Your task to perform on an android device: change keyboard looks Image 0: 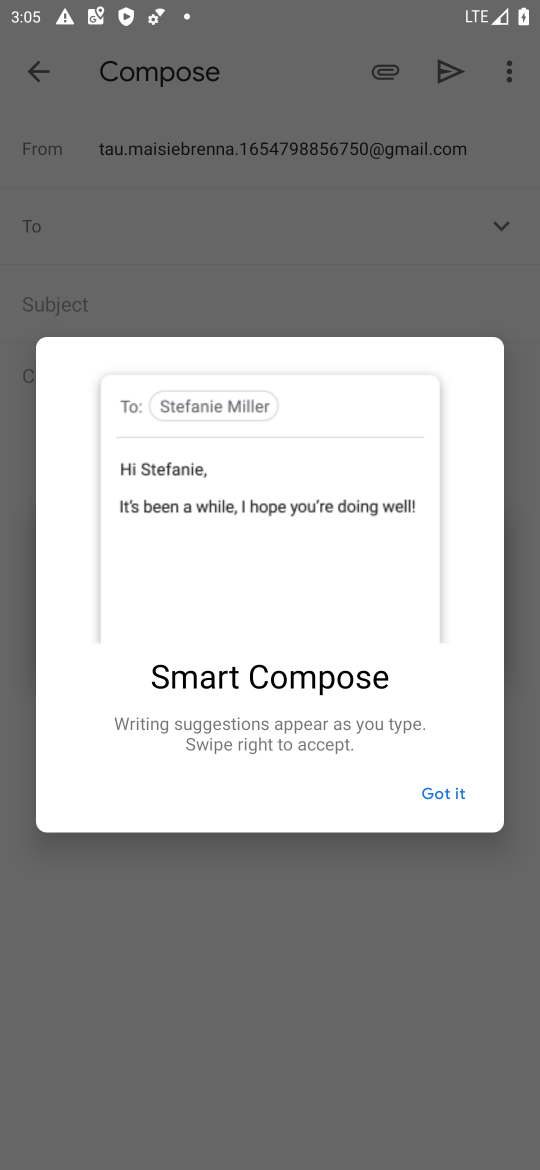
Step 0: press home button
Your task to perform on an android device: change keyboard looks Image 1: 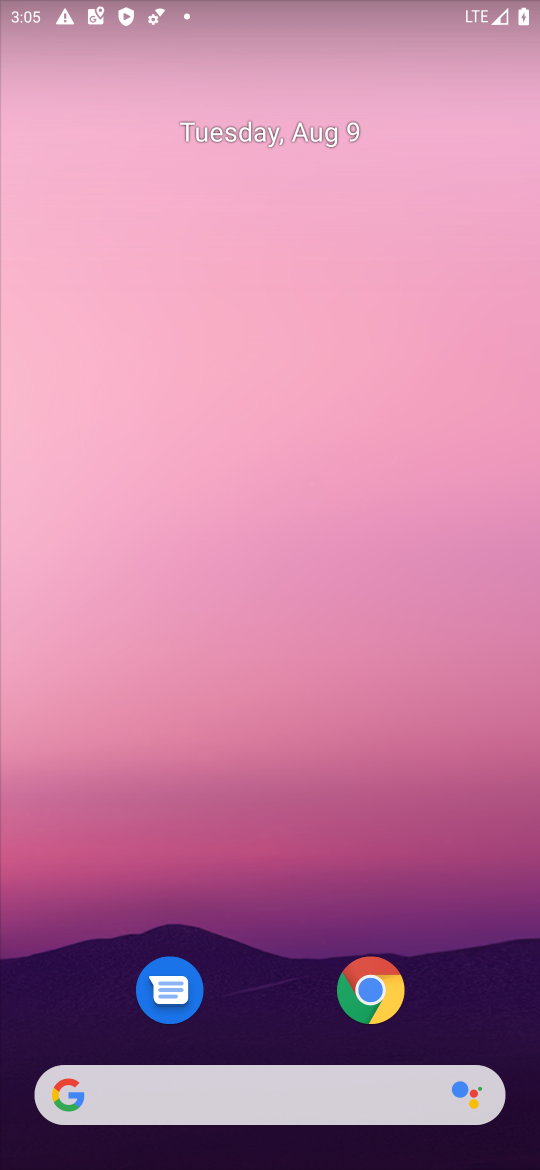
Step 1: click (227, 1064)
Your task to perform on an android device: change keyboard looks Image 2: 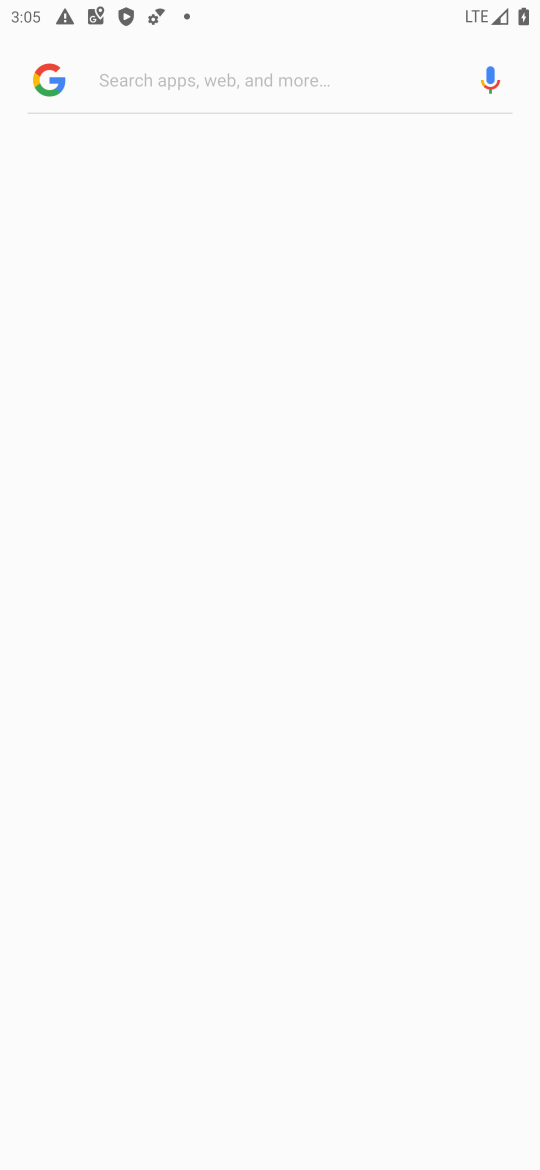
Step 2: drag from (227, 1064) to (220, 581)
Your task to perform on an android device: change keyboard looks Image 3: 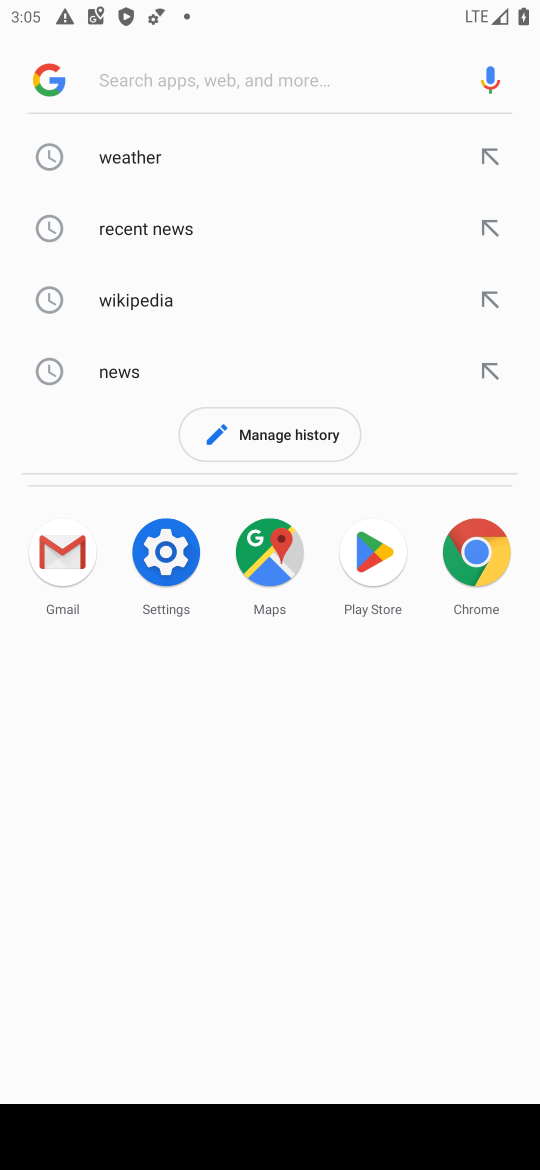
Step 3: click (220, 581)
Your task to perform on an android device: change keyboard looks Image 4: 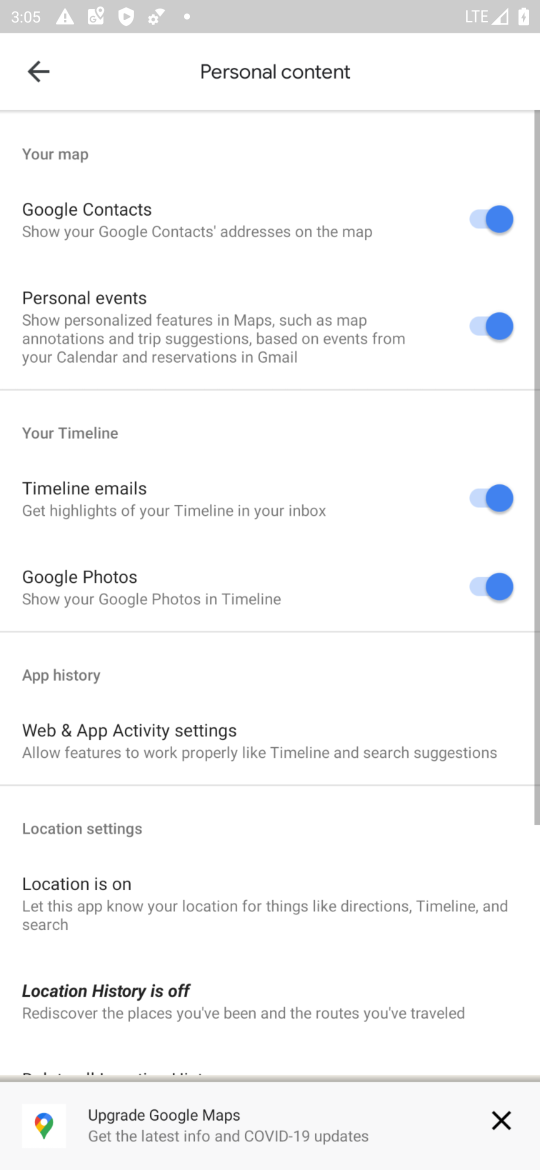
Step 4: press home button
Your task to perform on an android device: change keyboard looks Image 5: 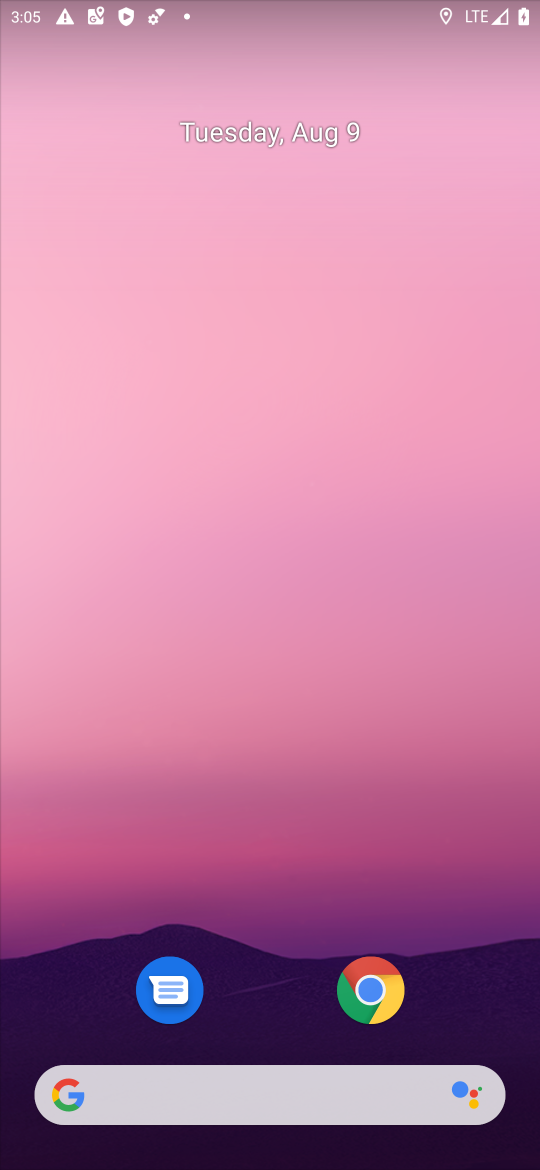
Step 5: drag from (295, 1118) to (259, 338)
Your task to perform on an android device: change keyboard looks Image 6: 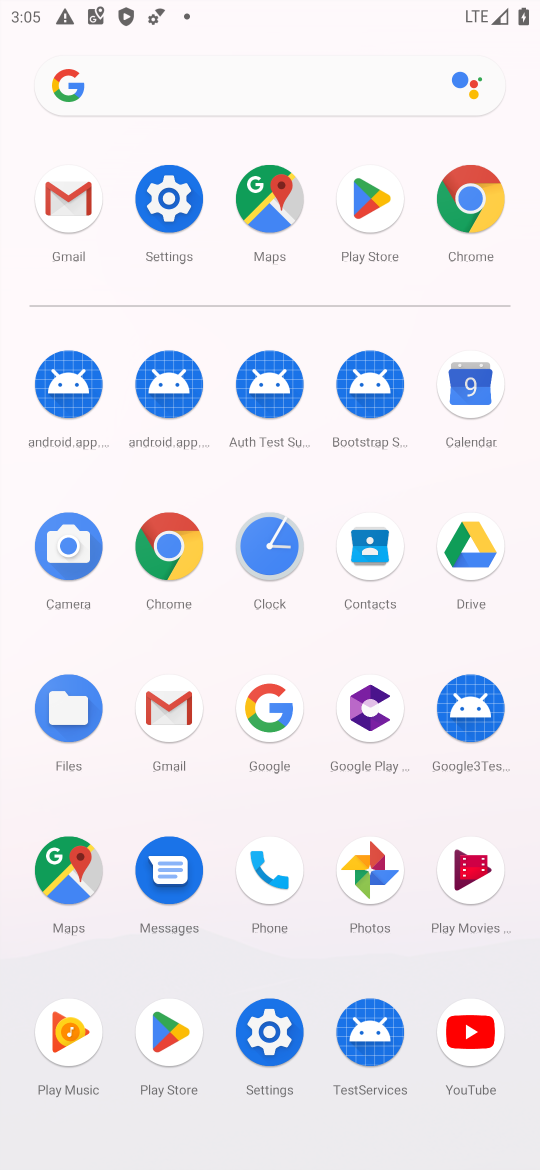
Step 6: click (170, 191)
Your task to perform on an android device: change keyboard looks Image 7: 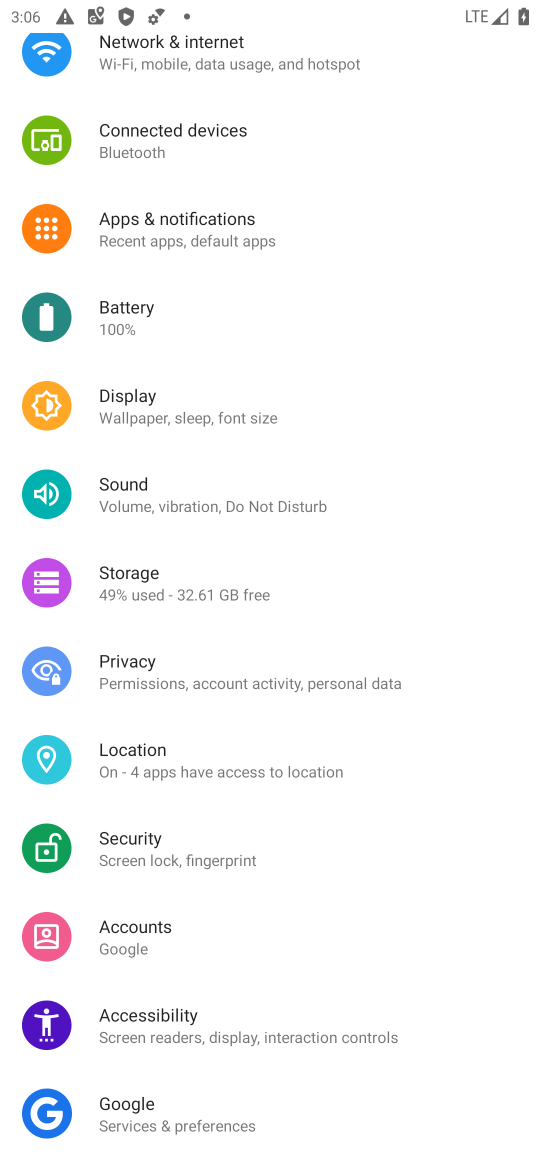
Step 7: drag from (376, 1118) to (311, 640)
Your task to perform on an android device: change keyboard looks Image 8: 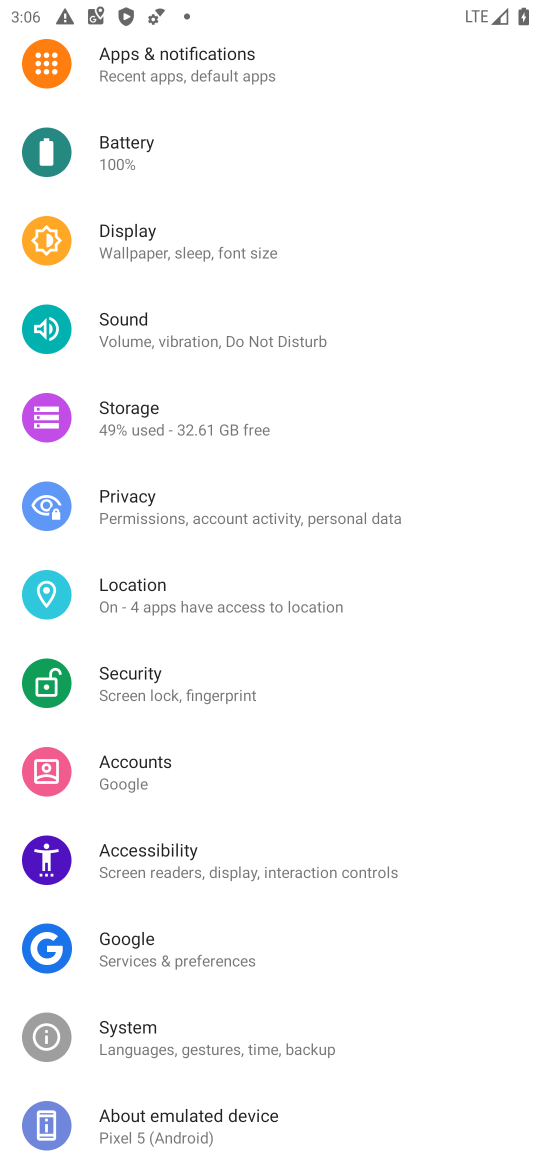
Step 8: click (186, 850)
Your task to perform on an android device: change keyboard looks Image 9: 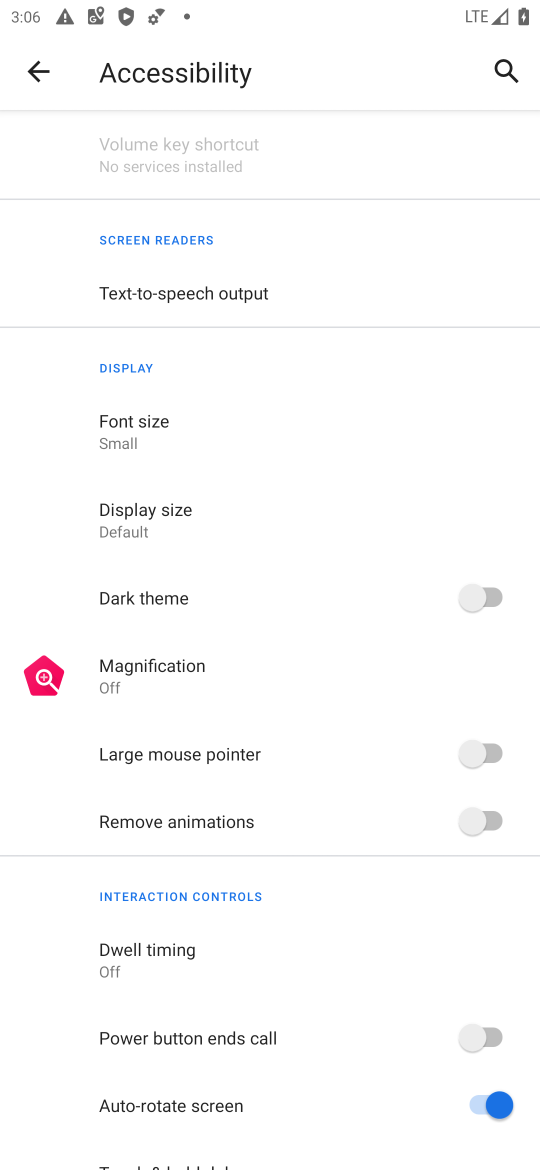
Step 9: press back button
Your task to perform on an android device: change keyboard looks Image 10: 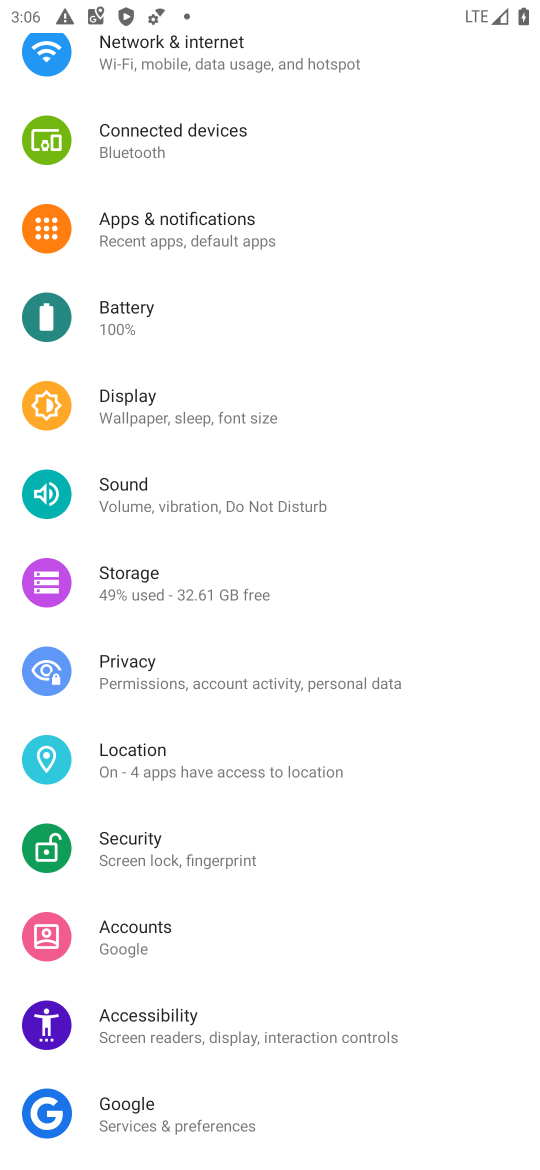
Step 10: click (275, 1032)
Your task to perform on an android device: change keyboard looks Image 11: 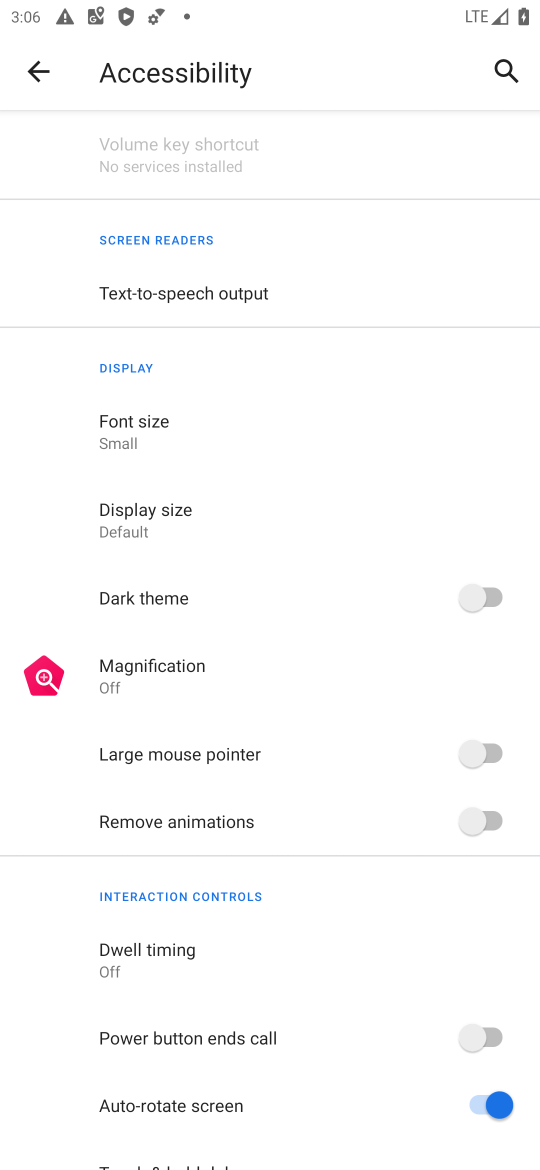
Step 11: press back button
Your task to perform on an android device: change keyboard looks Image 12: 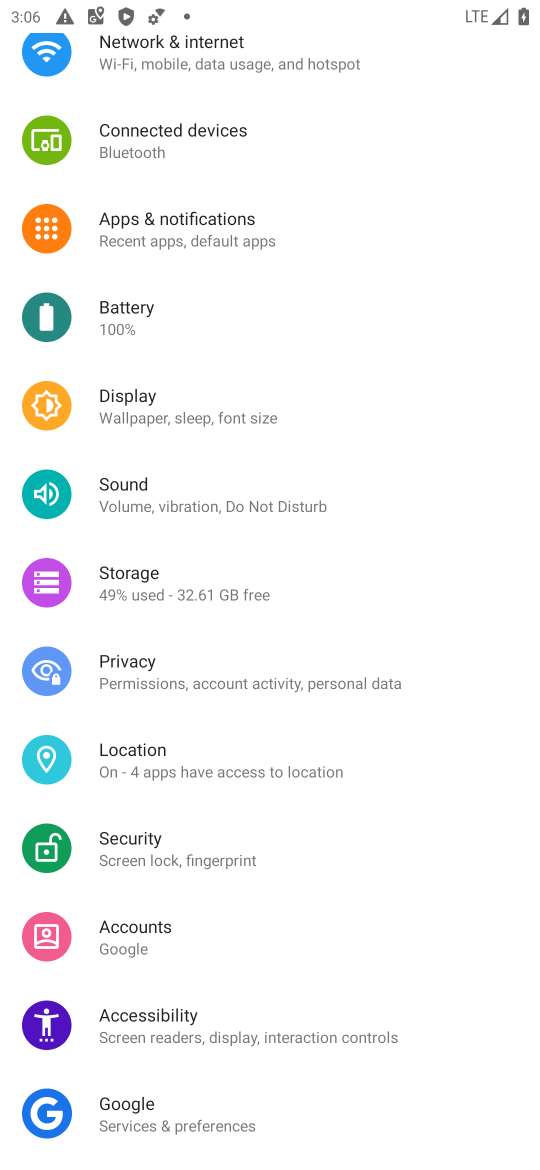
Step 12: drag from (432, 1072) to (359, 291)
Your task to perform on an android device: change keyboard looks Image 13: 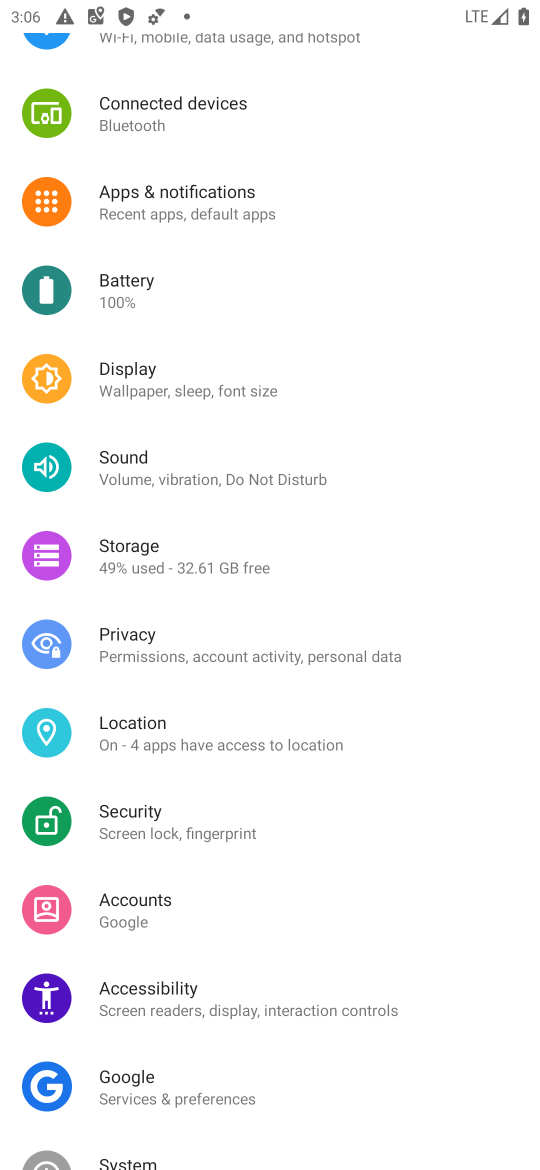
Step 13: click (138, 1160)
Your task to perform on an android device: change keyboard looks Image 14: 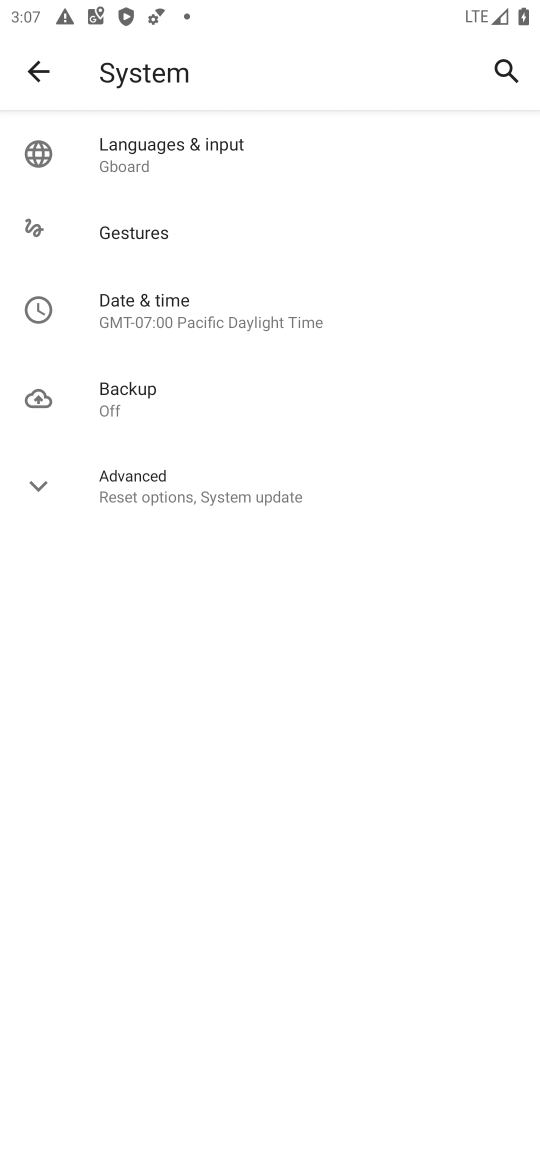
Step 14: click (203, 156)
Your task to perform on an android device: change keyboard looks Image 15: 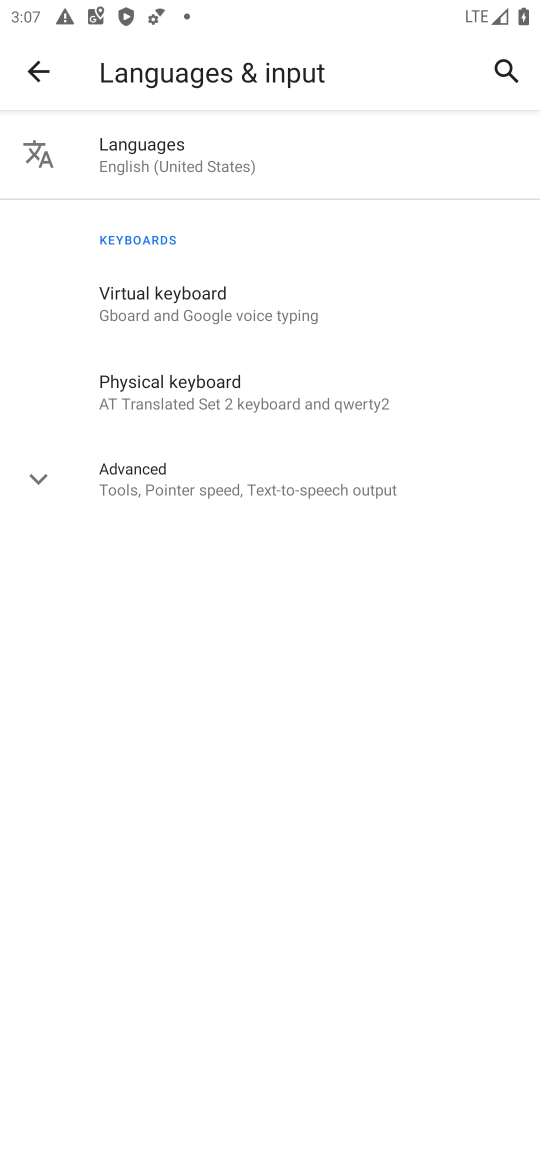
Step 15: click (173, 314)
Your task to perform on an android device: change keyboard looks Image 16: 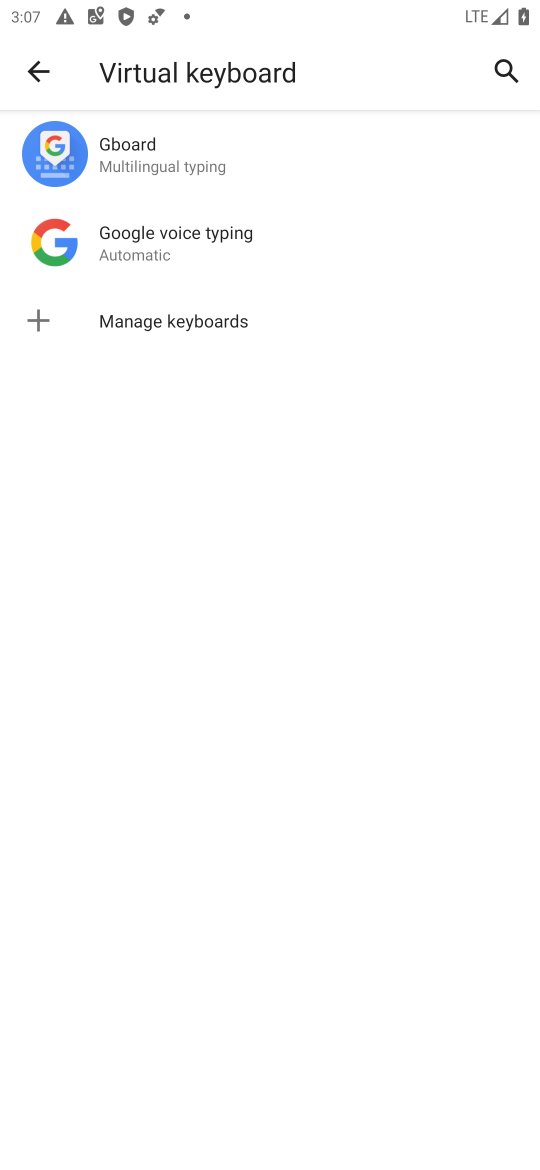
Step 16: click (176, 158)
Your task to perform on an android device: change keyboard looks Image 17: 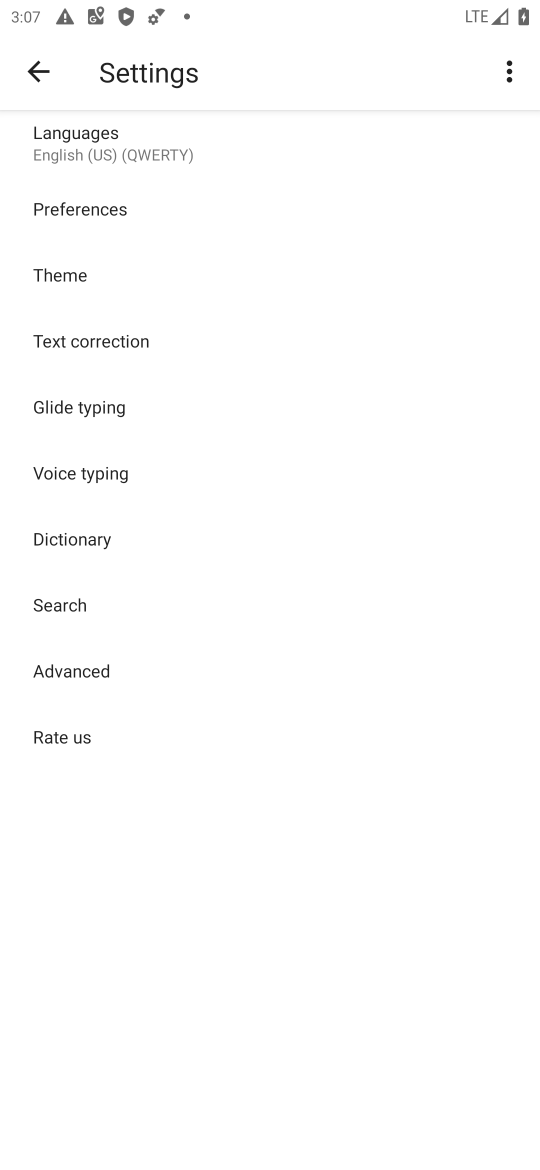
Step 17: click (53, 264)
Your task to perform on an android device: change keyboard looks Image 18: 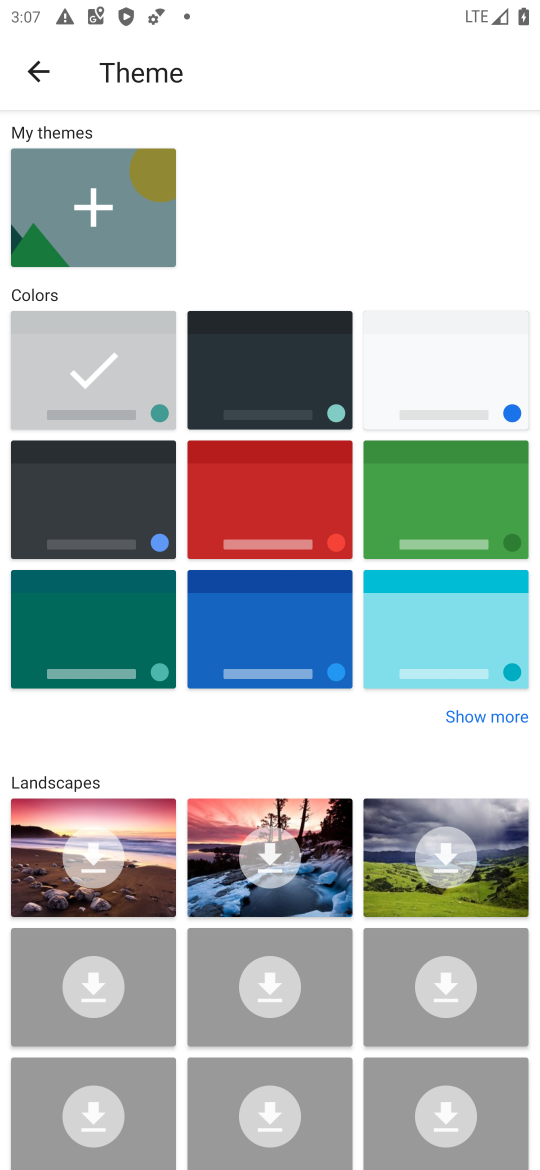
Step 18: click (463, 505)
Your task to perform on an android device: change keyboard looks Image 19: 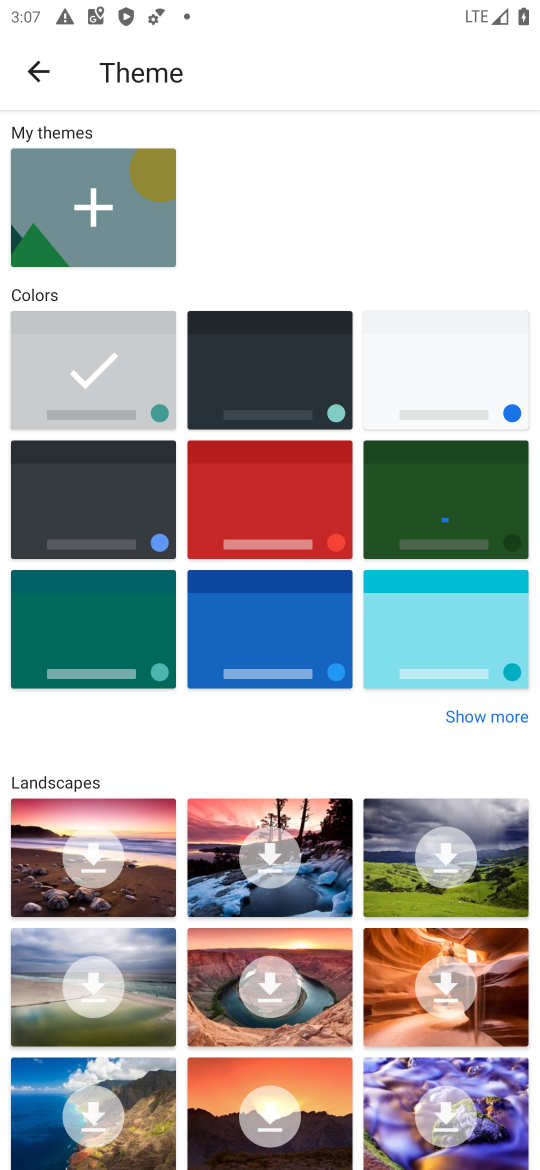
Step 19: task complete